Your task to perform on an android device: toggle javascript in the chrome app Image 0: 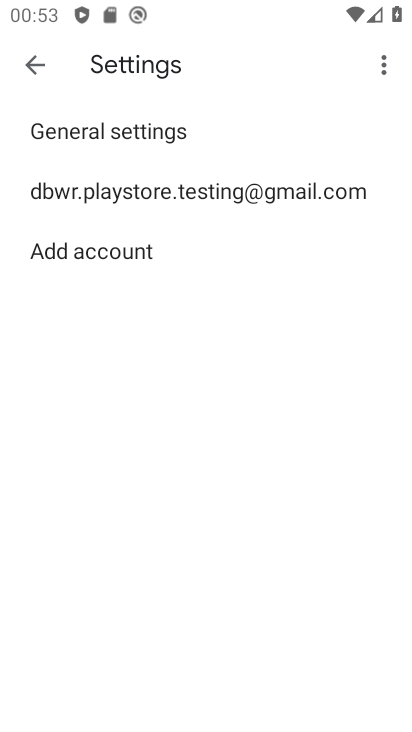
Step 0: press home button
Your task to perform on an android device: toggle javascript in the chrome app Image 1: 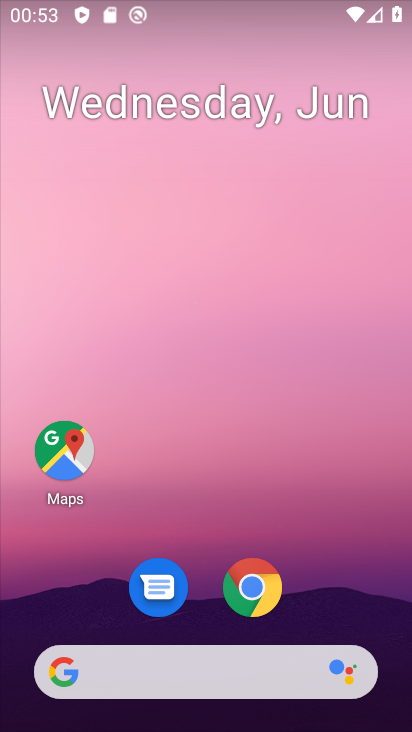
Step 1: click (247, 579)
Your task to perform on an android device: toggle javascript in the chrome app Image 2: 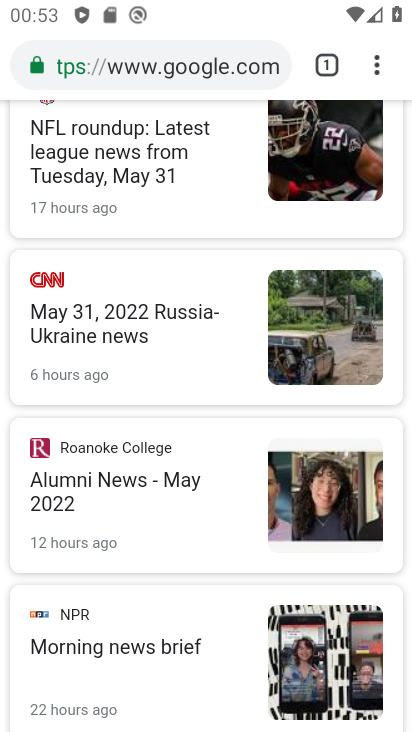
Step 2: drag from (377, 54) to (209, 645)
Your task to perform on an android device: toggle javascript in the chrome app Image 3: 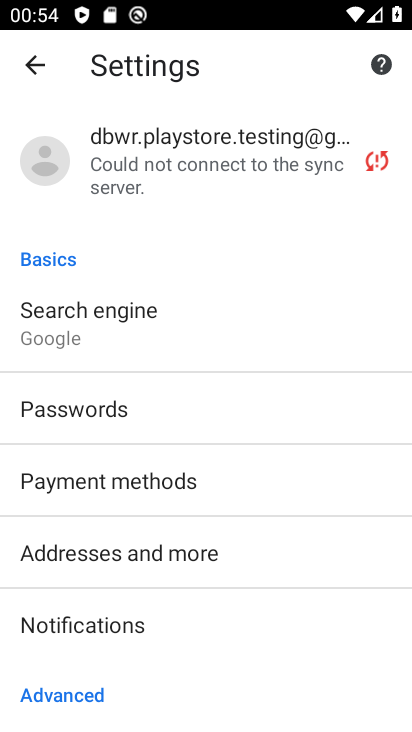
Step 3: drag from (209, 614) to (208, 288)
Your task to perform on an android device: toggle javascript in the chrome app Image 4: 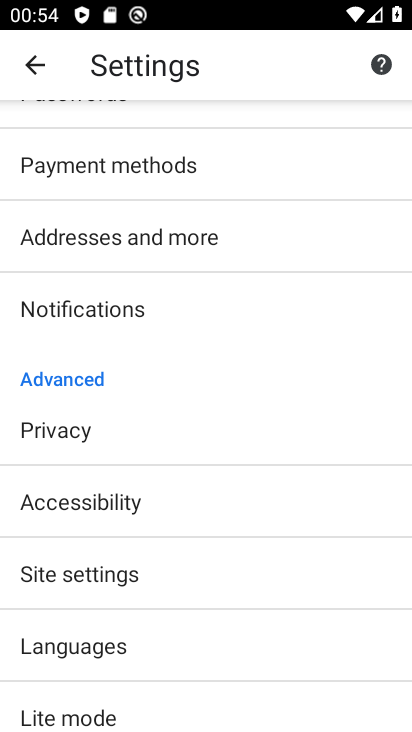
Step 4: click (131, 569)
Your task to perform on an android device: toggle javascript in the chrome app Image 5: 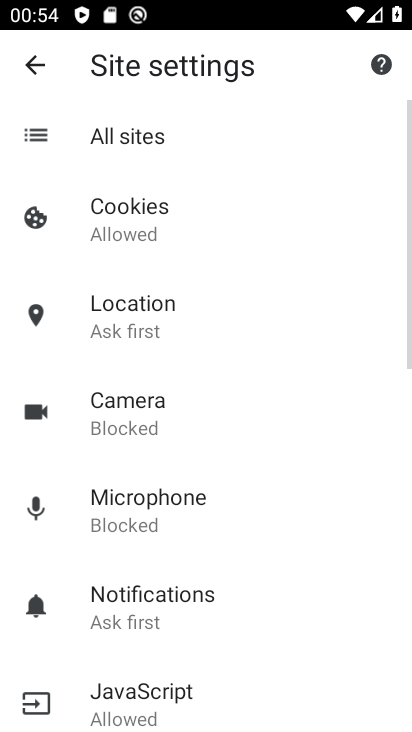
Step 5: drag from (247, 592) to (252, 147)
Your task to perform on an android device: toggle javascript in the chrome app Image 6: 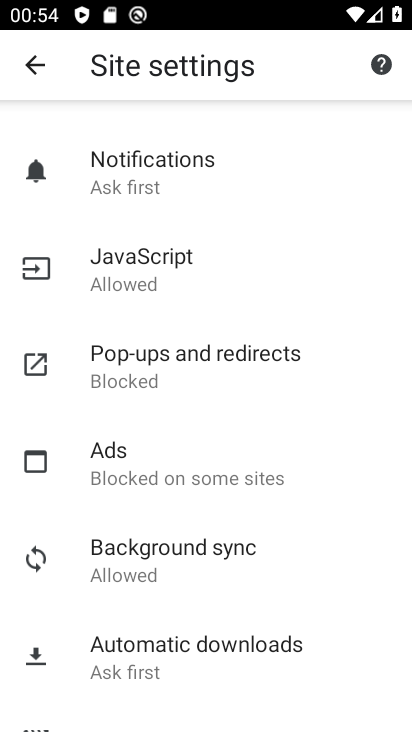
Step 6: click (124, 269)
Your task to perform on an android device: toggle javascript in the chrome app Image 7: 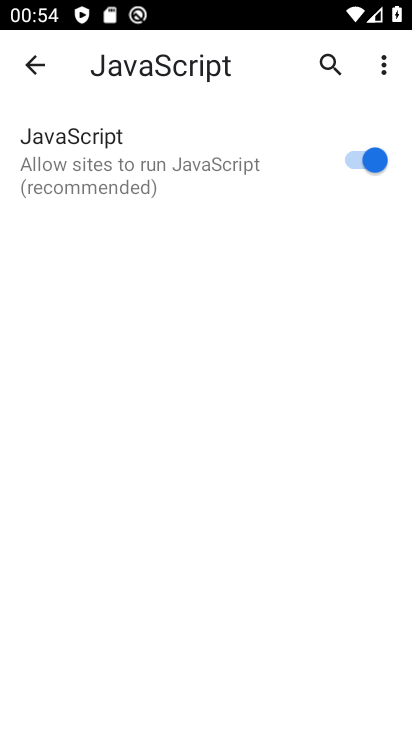
Step 7: click (367, 161)
Your task to perform on an android device: toggle javascript in the chrome app Image 8: 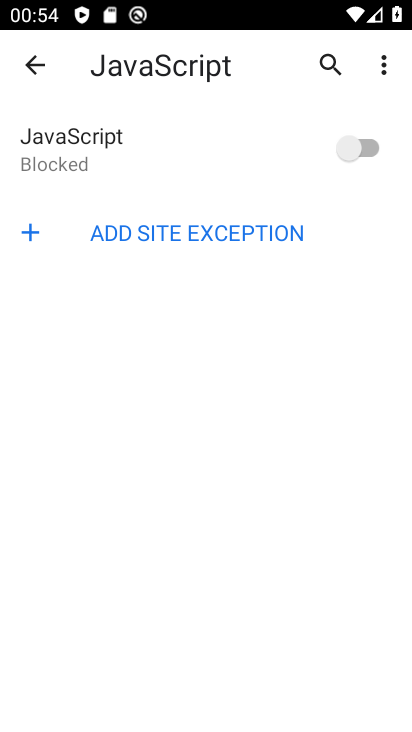
Step 8: task complete